Your task to perform on an android device: Set the phone to "Do not disturb". Image 0: 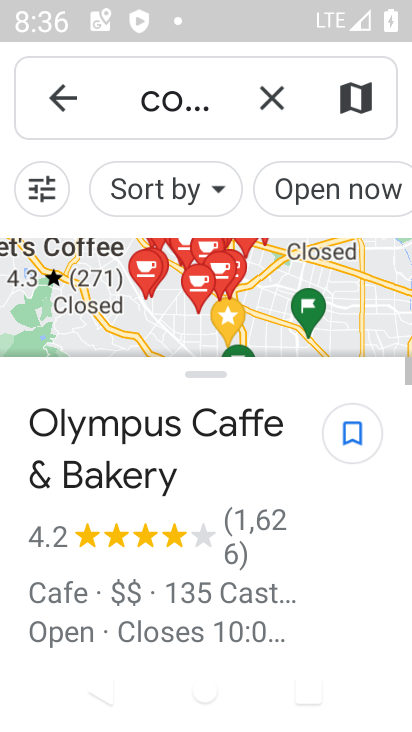
Step 0: press home button
Your task to perform on an android device: Set the phone to "Do not disturb". Image 1: 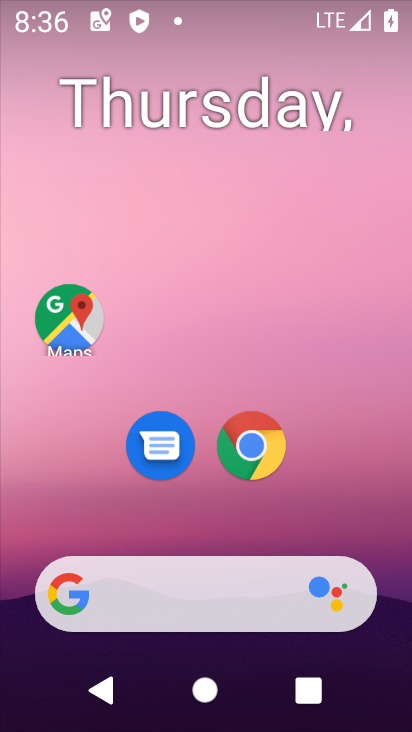
Step 1: drag from (221, 0) to (176, 464)
Your task to perform on an android device: Set the phone to "Do not disturb". Image 2: 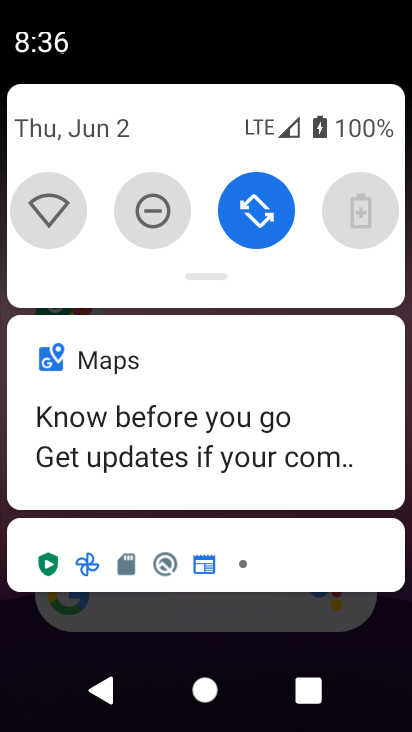
Step 2: click (137, 219)
Your task to perform on an android device: Set the phone to "Do not disturb". Image 3: 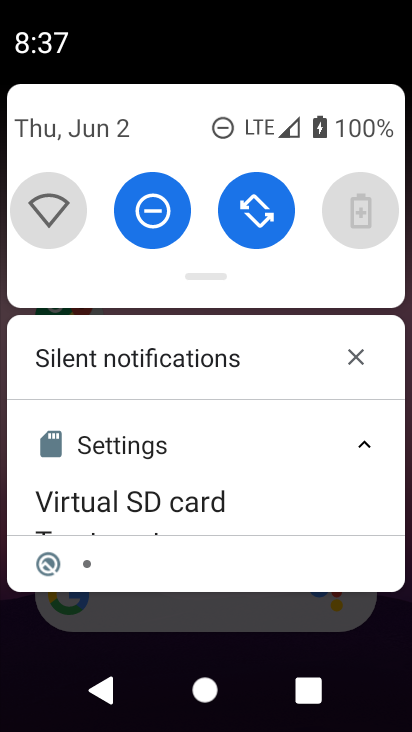
Step 3: task complete